Your task to perform on an android device: move an email to a new category in the gmail app Image 0: 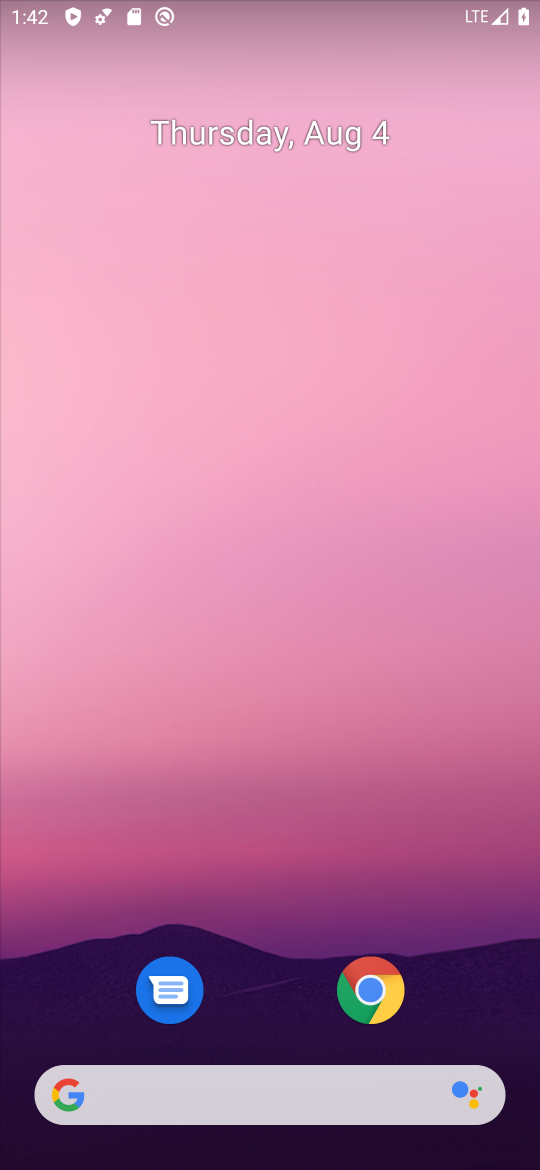
Step 0: drag from (295, 1049) to (187, 121)
Your task to perform on an android device: move an email to a new category in the gmail app Image 1: 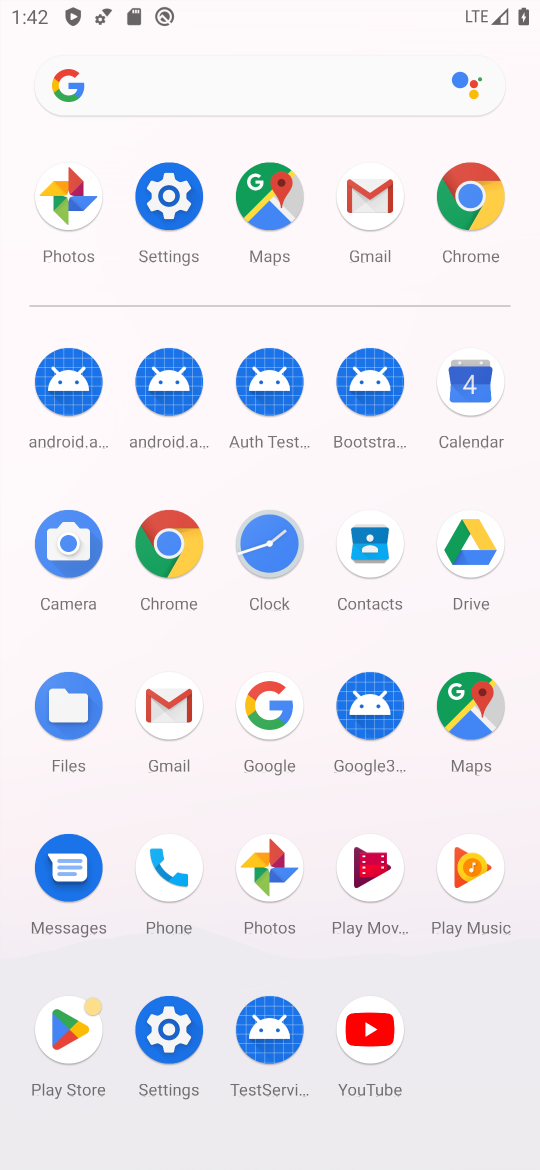
Step 1: click (355, 236)
Your task to perform on an android device: move an email to a new category in the gmail app Image 2: 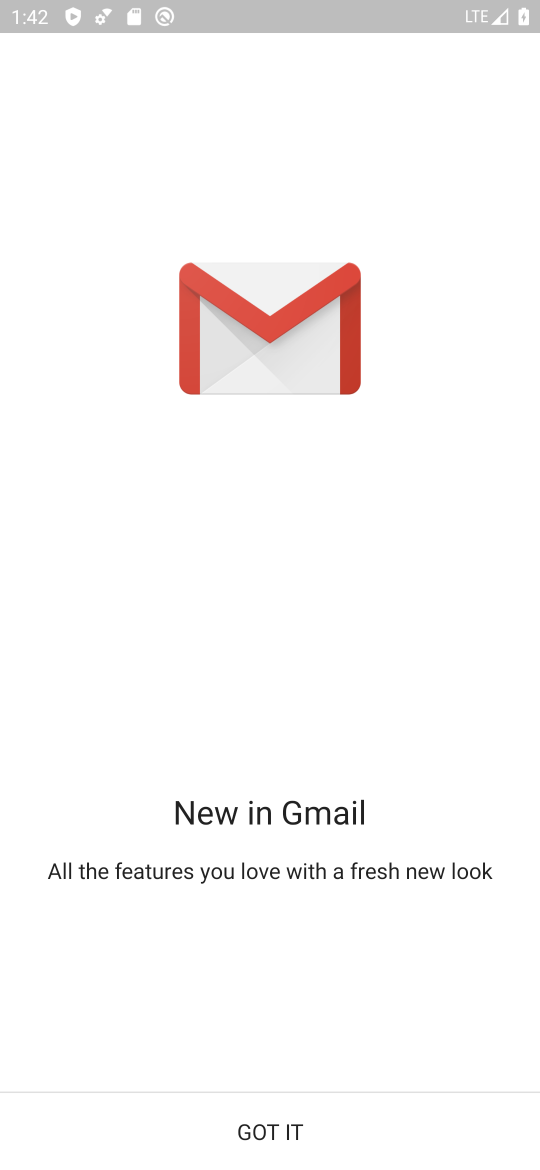
Step 2: click (320, 1146)
Your task to perform on an android device: move an email to a new category in the gmail app Image 3: 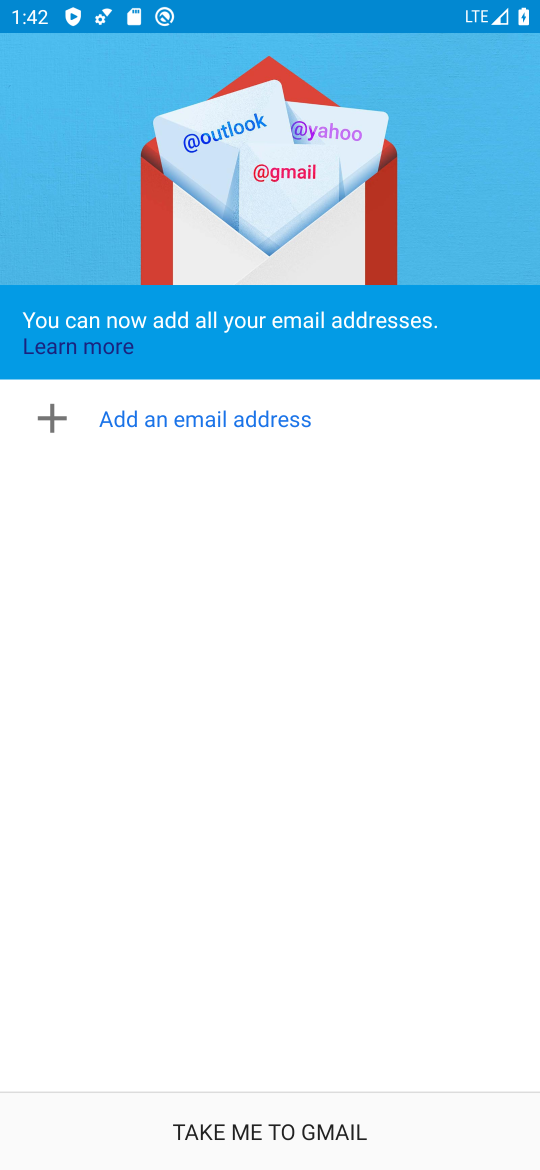
Step 3: click (320, 1146)
Your task to perform on an android device: move an email to a new category in the gmail app Image 4: 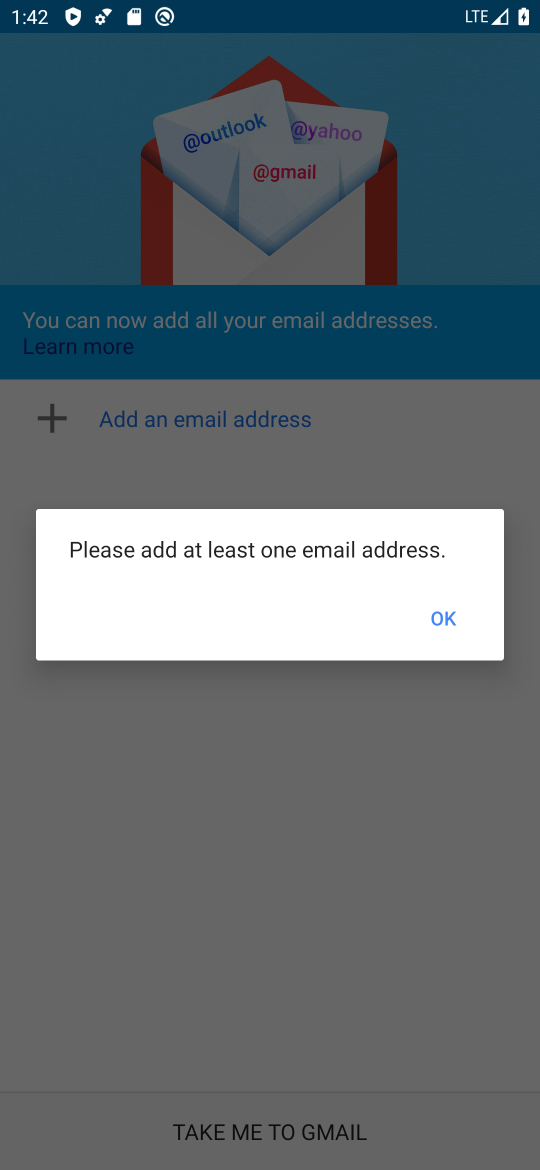
Step 4: task complete